Your task to perform on an android device: allow cookies in the chrome app Image 0: 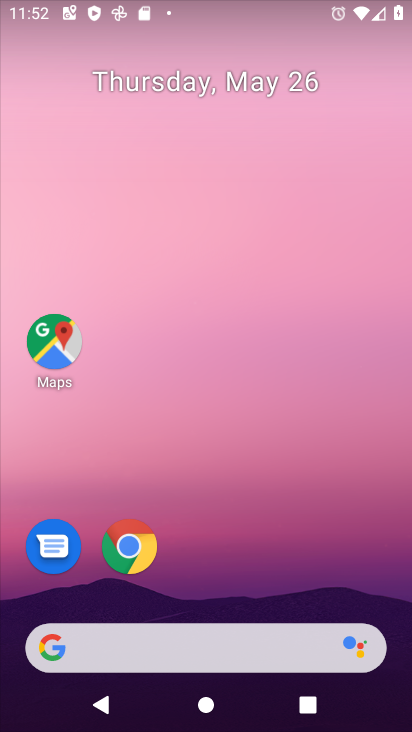
Step 0: click (134, 543)
Your task to perform on an android device: allow cookies in the chrome app Image 1: 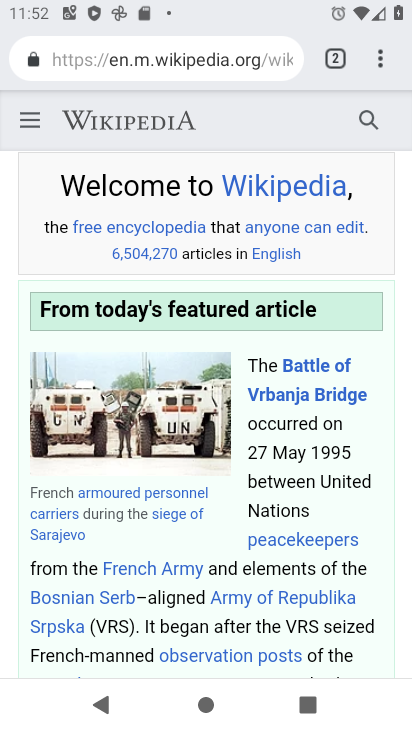
Step 1: click (377, 67)
Your task to perform on an android device: allow cookies in the chrome app Image 2: 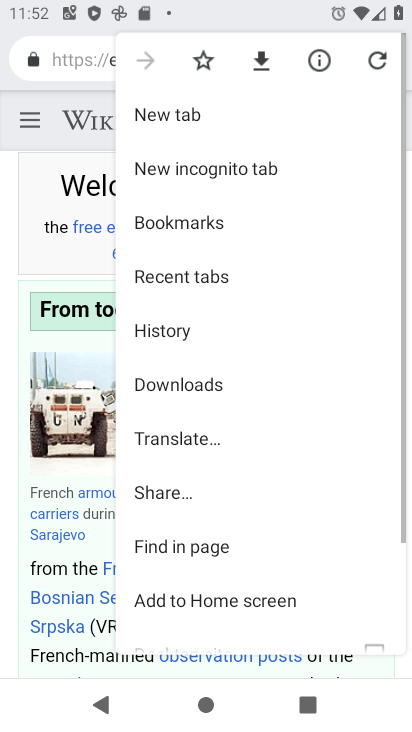
Step 2: drag from (231, 572) to (240, 138)
Your task to perform on an android device: allow cookies in the chrome app Image 3: 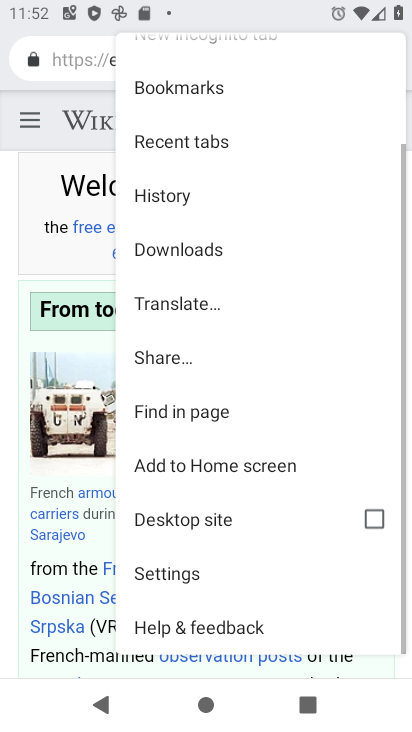
Step 3: click (160, 576)
Your task to perform on an android device: allow cookies in the chrome app Image 4: 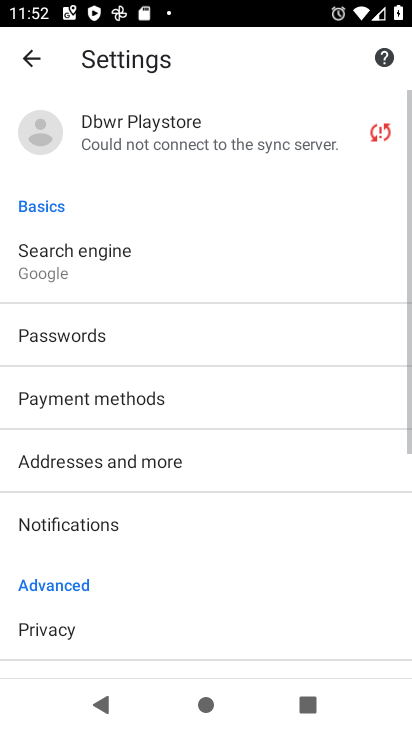
Step 4: drag from (129, 628) to (144, 136)
Your task to perform on an android device: allow cookies in the chrome app Image 5: 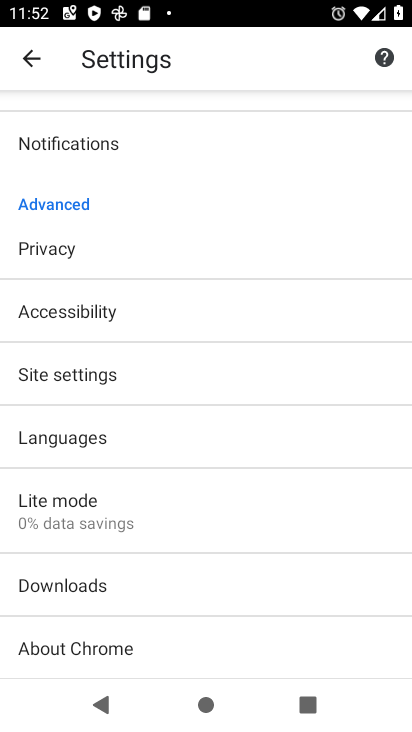
Step 5: click (50, 396)
Your task to perform on an android device: allow cookies in the chrome app Image 6: 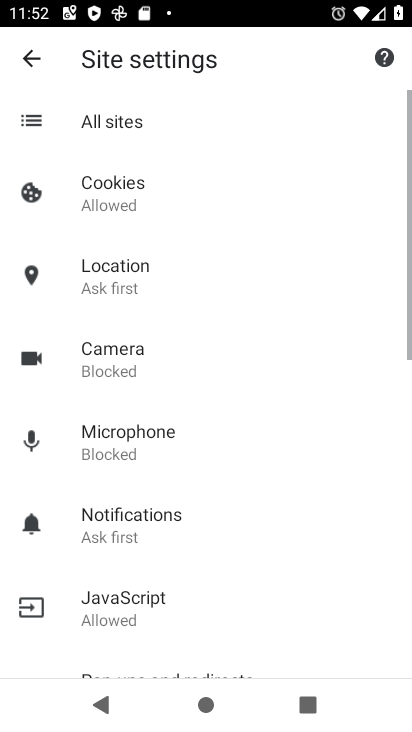
Step 6: click (136, 177)
Your task to perform on an android device: allow cookies in the chrome app Image 7: 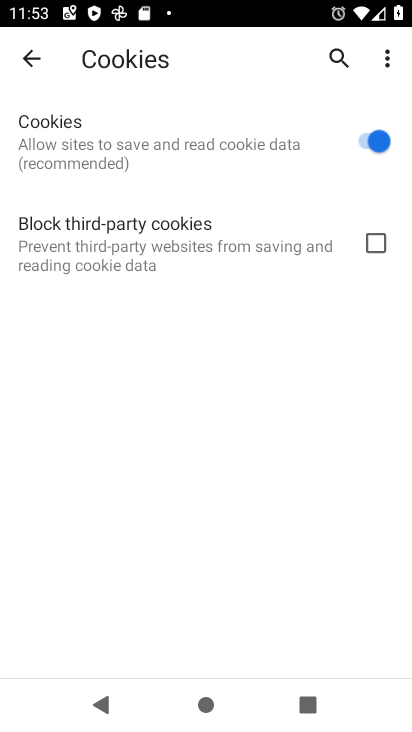
Step 7: task complete